Your task to perform on an android device: Go to wifi settings Image 0: 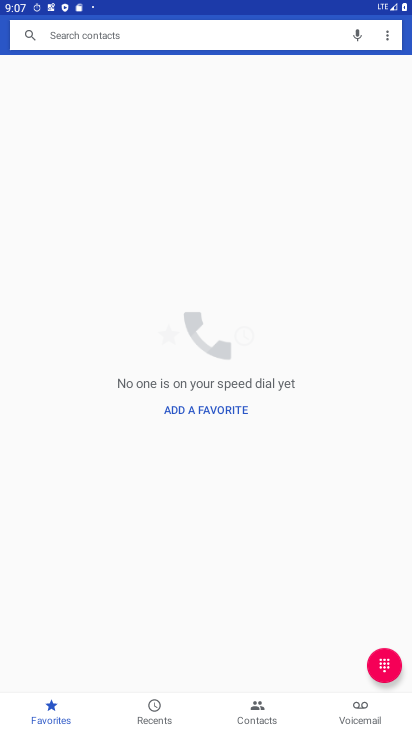
Step 0: press home button
Your task to perform on an android device: Go to wifi settings Image 1: 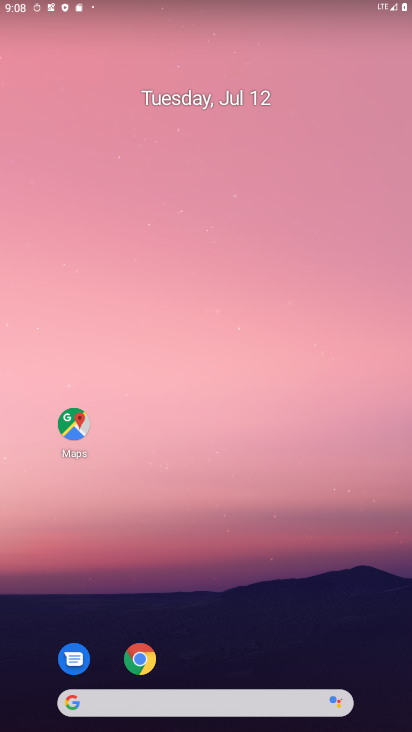
Step 1: drag from (395, 692) to (240, 138)
Your task to perform on an android device: Go to wifi settings Image 2: 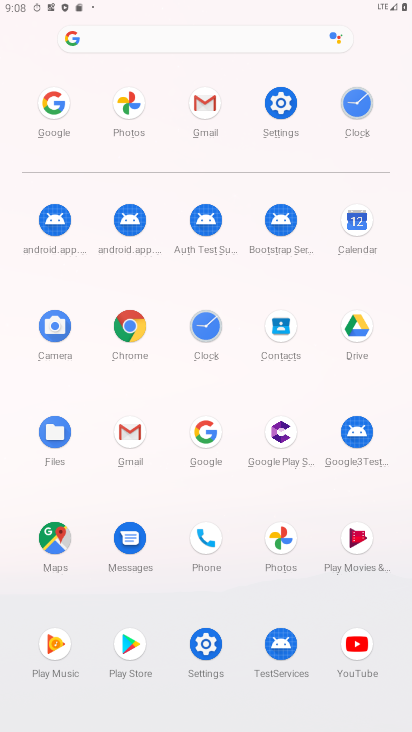
Step 2: click (210, 656)
Your task to perform on an android device: Go to wifi settings Image 3: 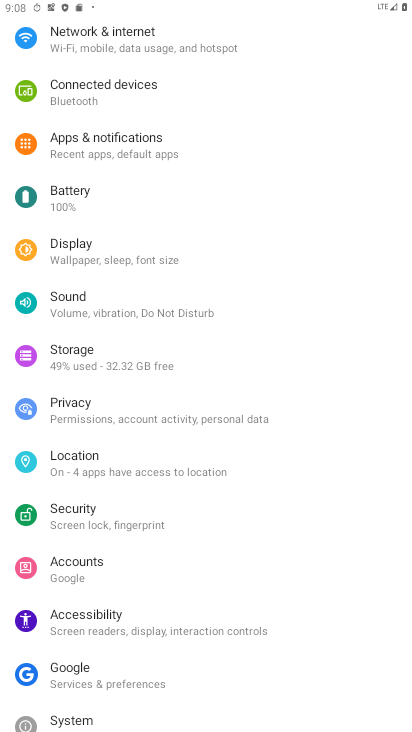
Step 3: drag from (172, 118) to (264, 568)
Your task to perform on an android device: Go to wifi settings Image 4: 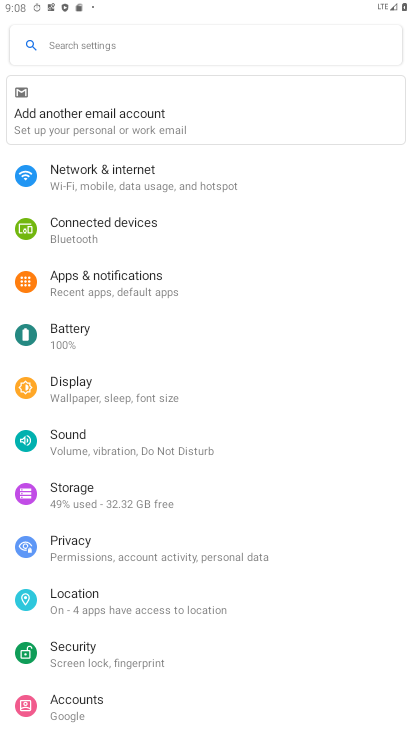
Step 4: click (107, 182)
Your task to perform on an android device: Go to wifi settings Image 5: 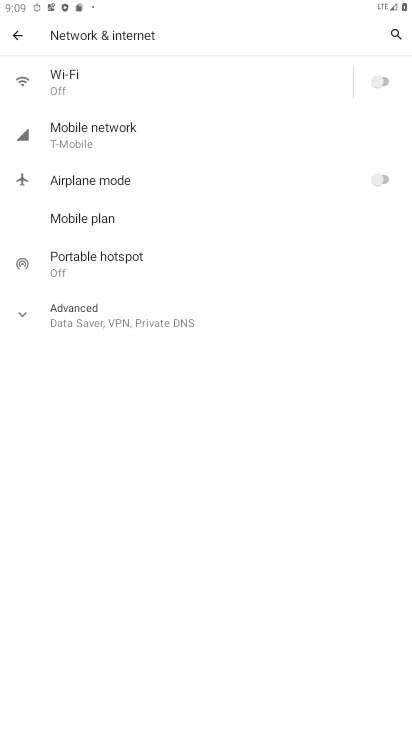
Step 5: click (122, 88)
Your task to perform on an android device: Go to wifi settings Image 6: 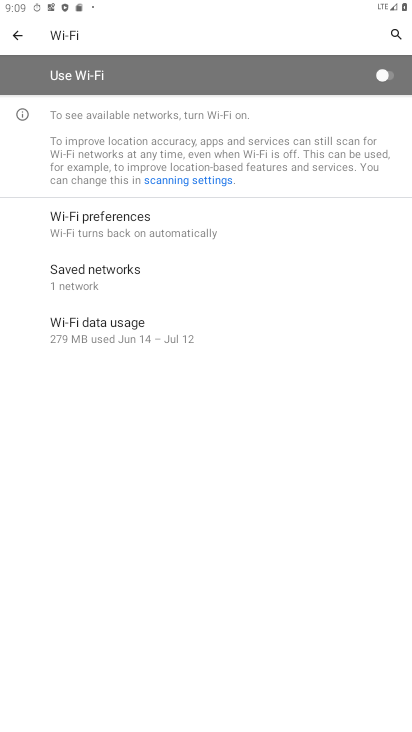
Step 6: task complete